Your task to perform on an android device: open a bookmark in the chrome app Image 0: 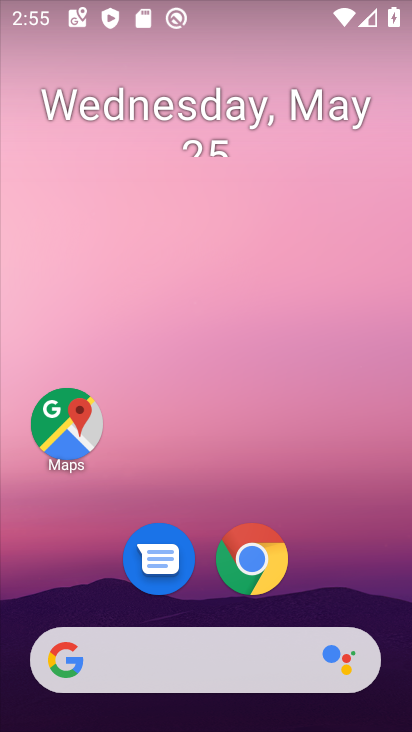
Step 0: press home button
Your task to perform on an android device: open a bookmark in the chrome app Image 1: 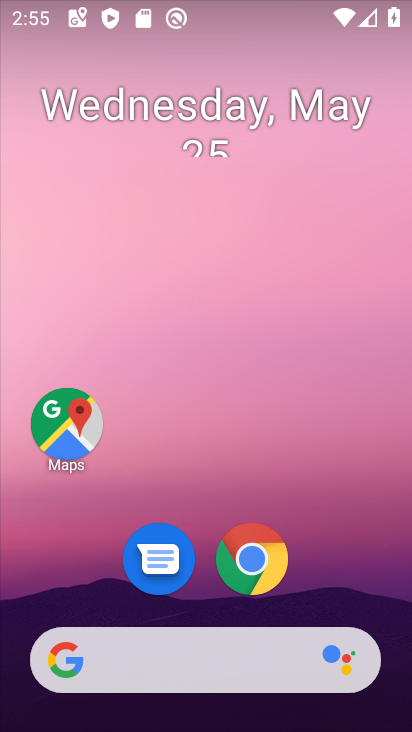
Step 1: click (249, 552)
Your task to perform on an android device: open a bookmark in the chrome app Image 2: 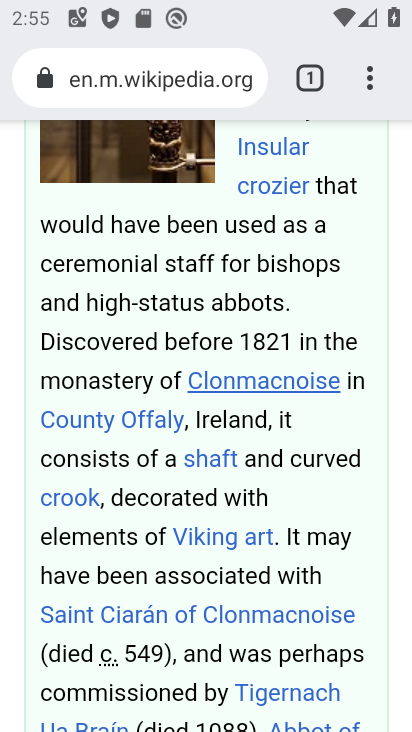
Step 2: click (369, 74)
Your task to perform on an android device: open a bookmark in the chrome app Image 3: 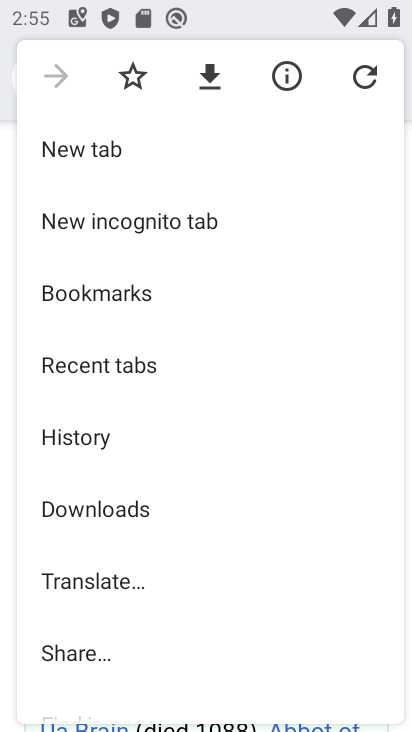
Step 3: click (164, 290)
Your task to perform on an android device: open a bookmark in the chrome app Image 4: 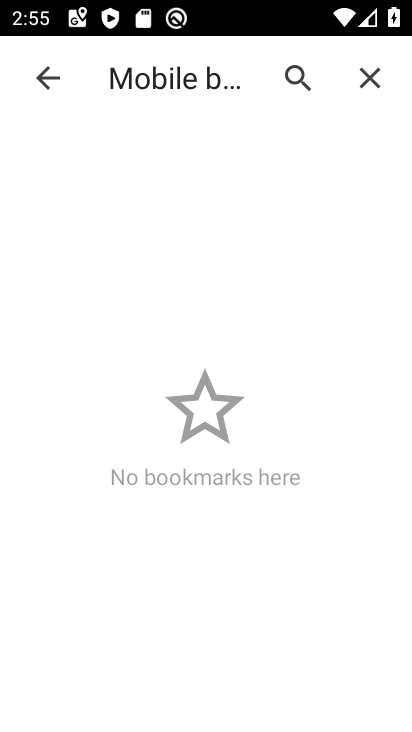
Step 4: task complete